Your task to perform on an android device: Go to Reddit.com Image 0: 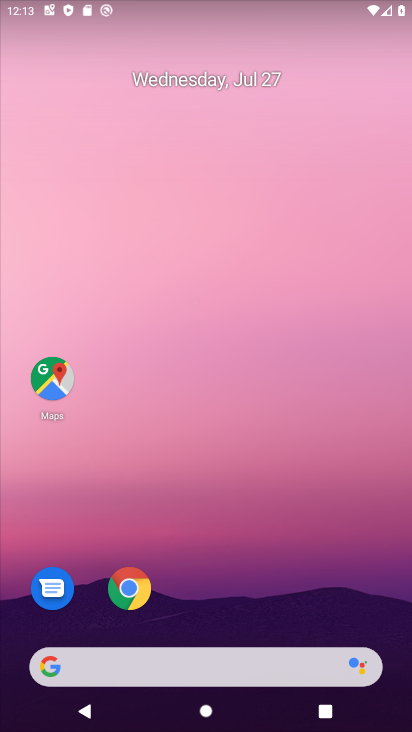
Step 0: click (89, 654)
Your task to perform on an android device: Go to Reddit.com Image 1: 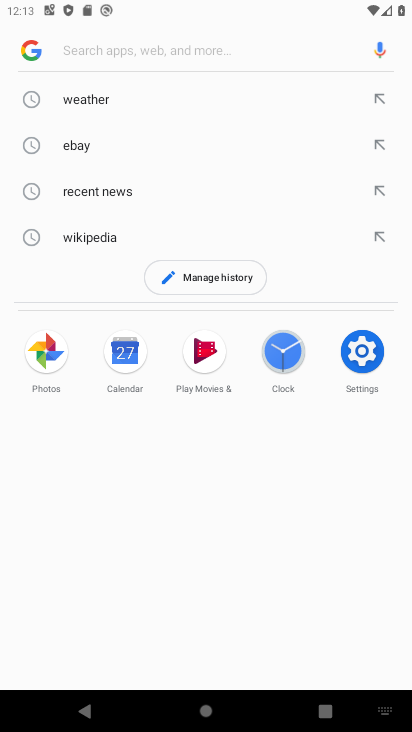
Step 1: type "Reddit.com"
Your task to perform on an android device: Go to Reddit.com Image 2: 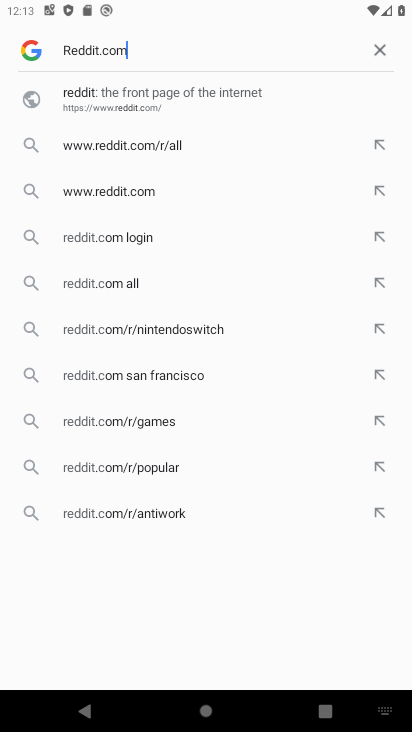
Step 2: type ""
Your task to perform on an android device: Go to Reddit.com Image 3: 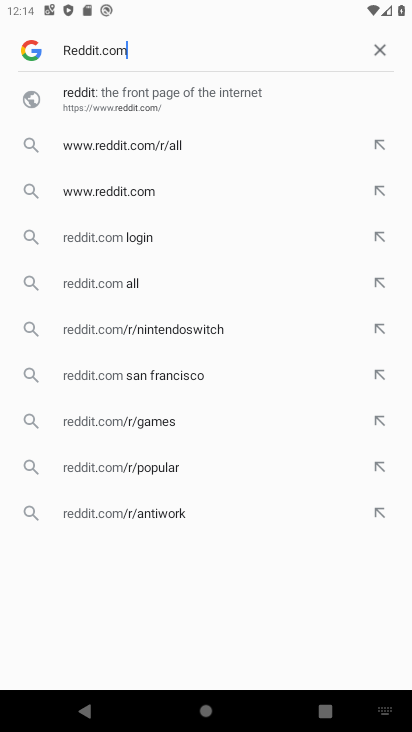
Step 3: task complete